Your task to perform on an android device: Go to location settings Image 0: 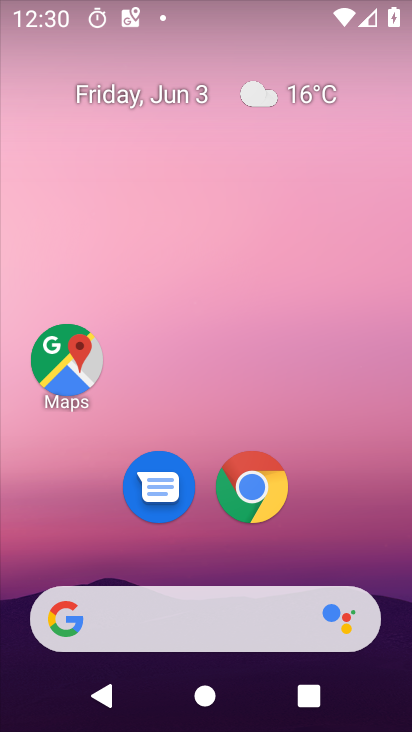
Step 0: drag from (233, 630) to (223, 317)
Your task to perform on an android device: Go to location settings Image 1: 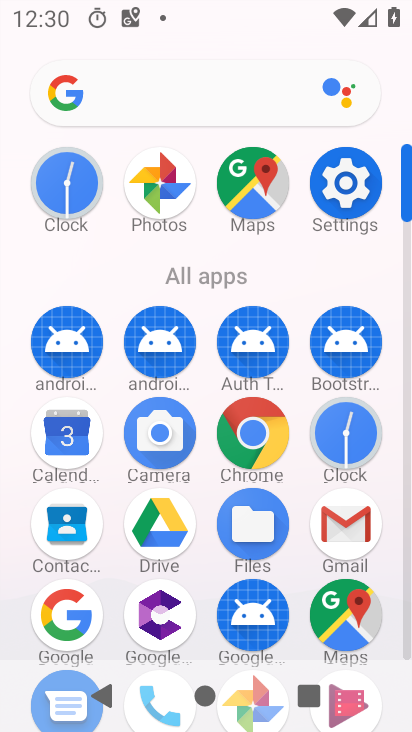
Step 1: click (312, 205)
Your task to perform on an android device: Go to location settings Image 2: 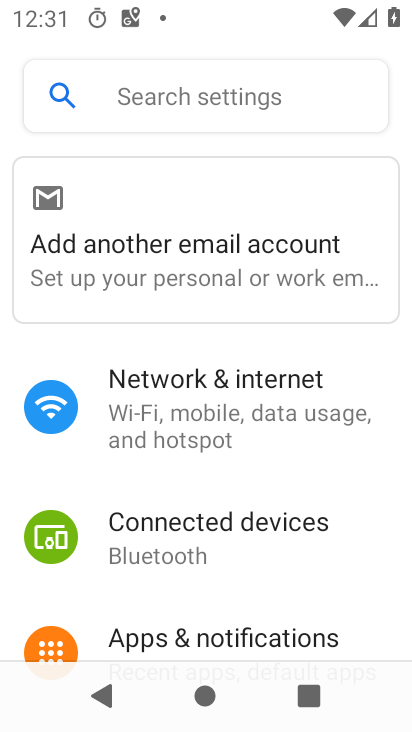
Step 2: drag from (189, 565) to (122, 5)
Your task to perform on an android device: Go to location settings Image 3: 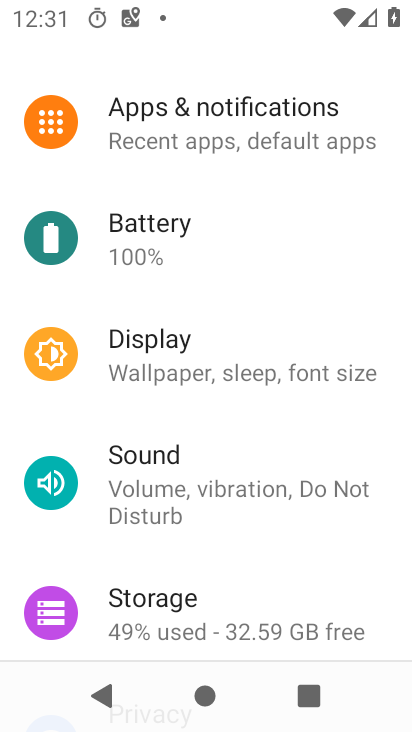
Step 3: drag from (191, 547) to (130, 10)
Your task to perform on an android device: Go to location settings Image 4: 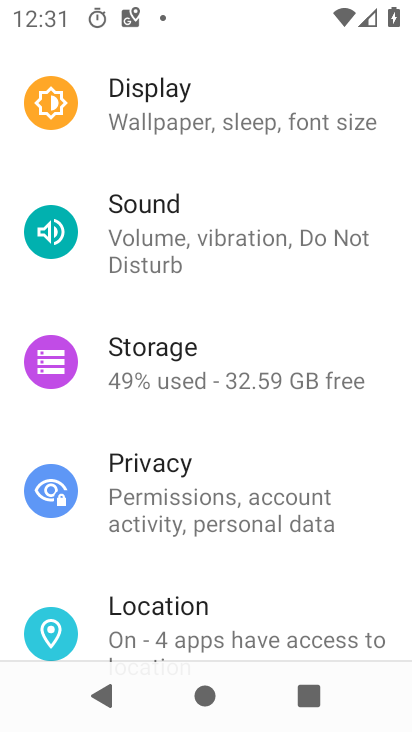
Step 4: click (200, 622)
Your task to perform on an android device: Go to location settings Image 5: 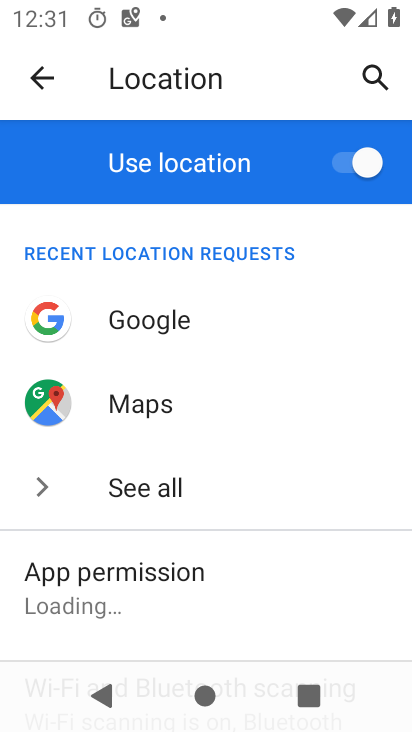
Step 5: task complete